Your task to perform on an android device: Do I have any events today? Image 0: 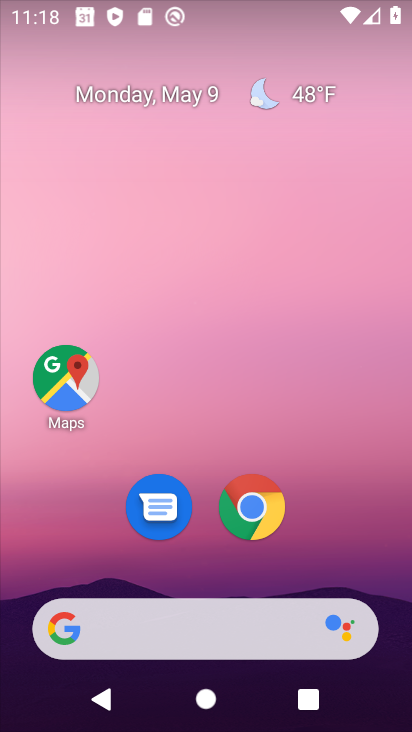
Step 0: click (157, 96)
Your task to perform on an android device: Do I have any events today? Image 1: 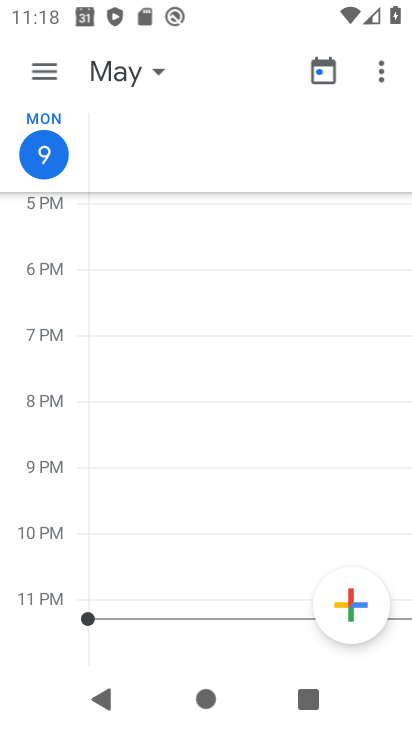
Step 1: click (47, 78)
Your task to perform on an android device: Do I have any events today? Image 2: 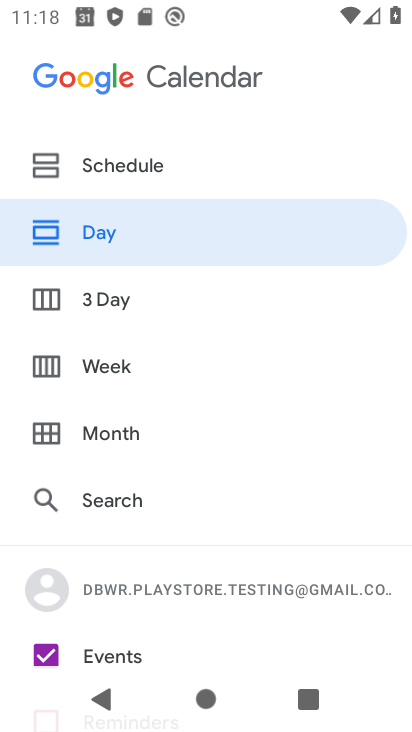
Step 2: drag from (183, 583) to (216, 574)
Your task to perform on an android device: Do I have any events today? Image 3: 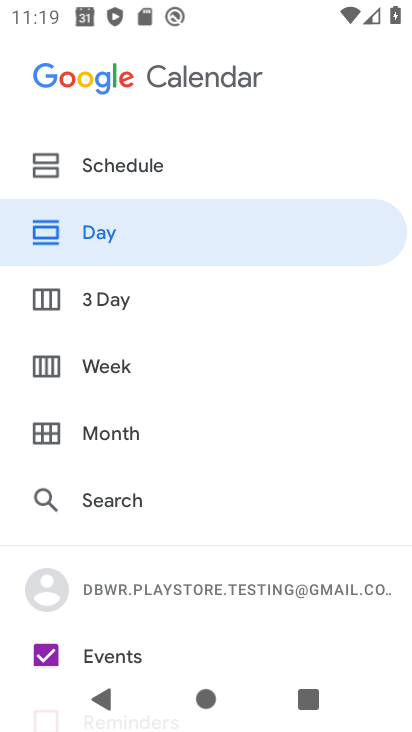
Step 3: click (142, 164)
Your task to perform on an android device: Do I have any events today? Image 4: 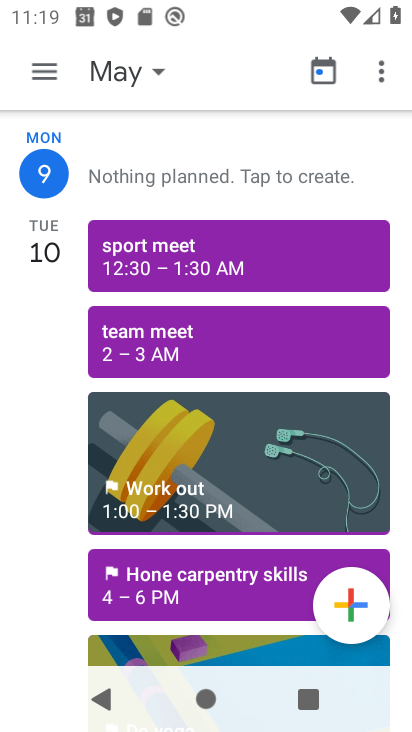
Step 4: task complete